Your task to perform on an android device: create a new album in the google photos Image 0: 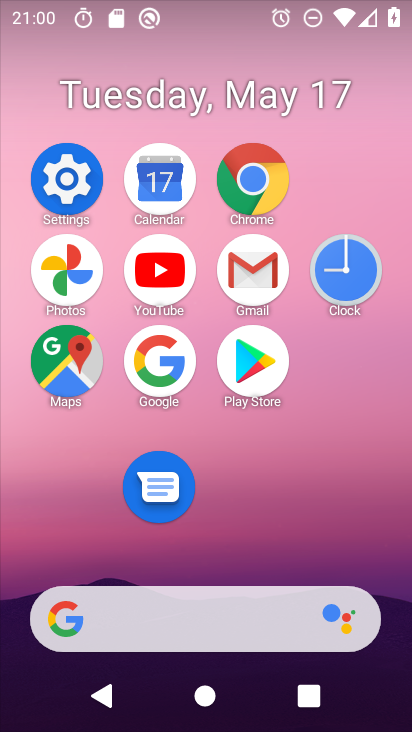
Step 0: click (62, 265)
Your task to perform on an android device: create a new album in the google photos Image 1: 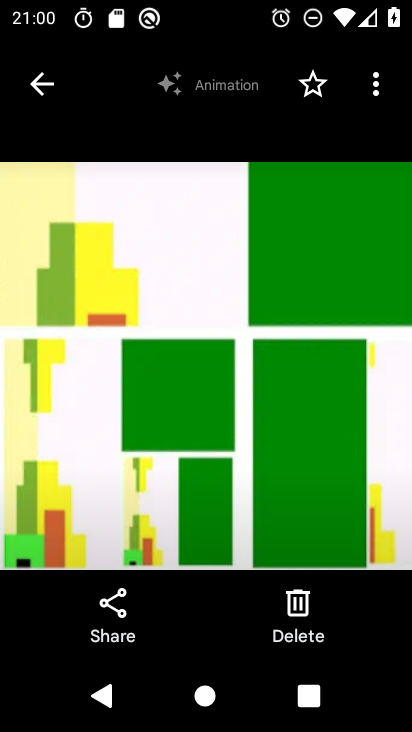
Step 1: click (33, 97)
Your task to perform on an android device: create a new album in the google photos Image 2: 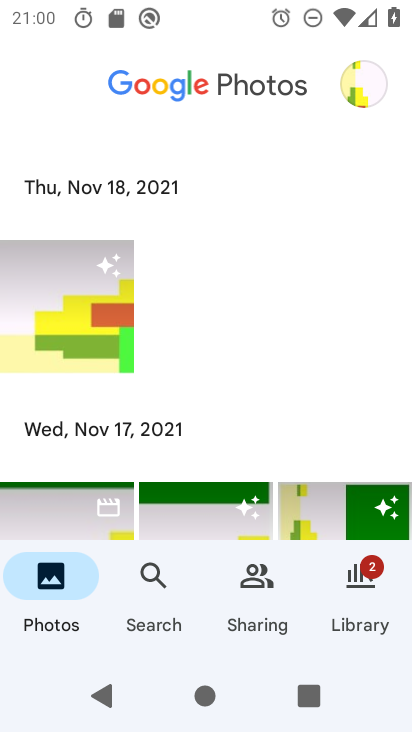
Step 2: click (360, 583)
Your task to perform on an android device: create a new album in the google photos Image 3: 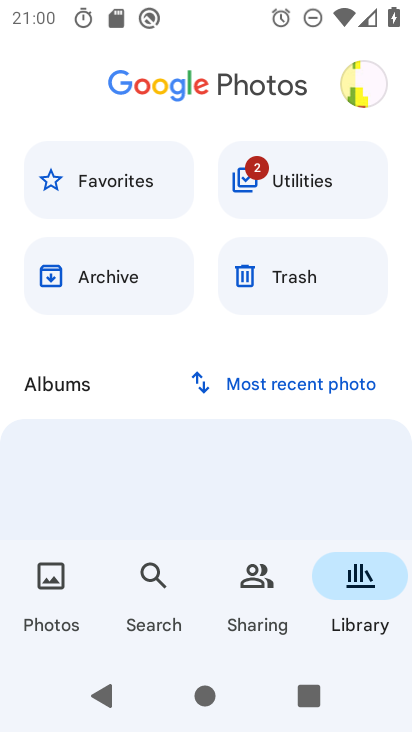
Step 3: drag from (249, 434) to (280, 117)
Your task to perform on an android device: create a new album in the google photos Image 4: 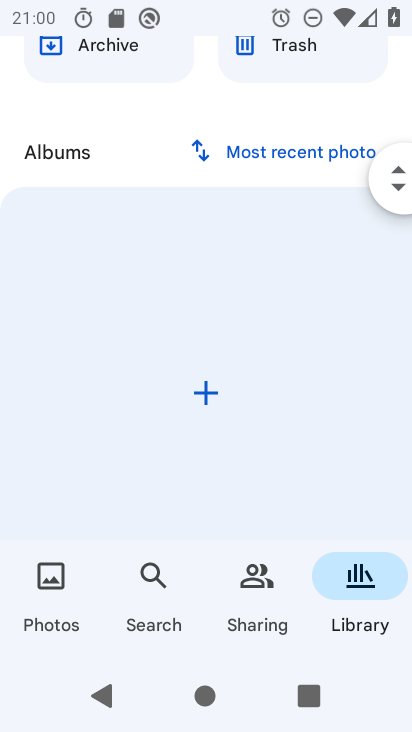
Step 4: click (226, 390)
Your task to perform on an android device: create a new album in the google photos Image 5: 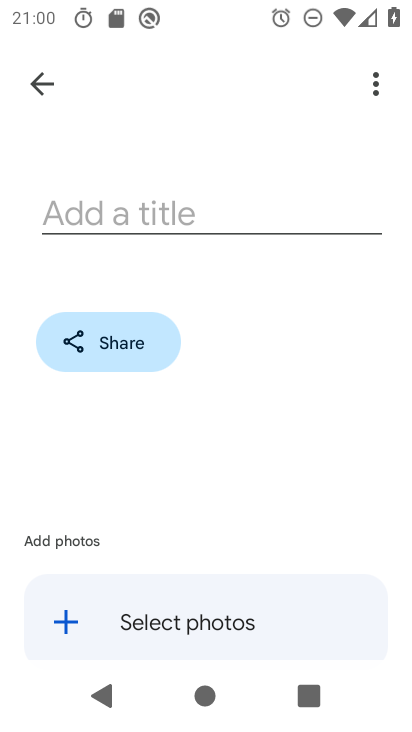
Step 5: click (237, 221)
Your task to perform on an android device: create a new album in the google photos Image 6: 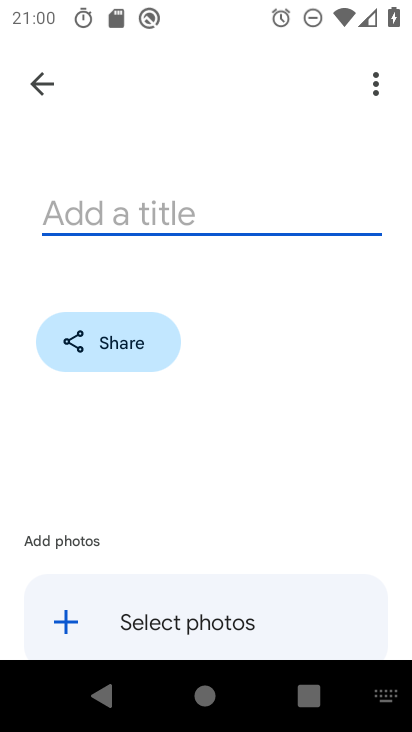
Step 6: type "bb"
Your task to perform on an android device: create a new album in the google photos Image 7: 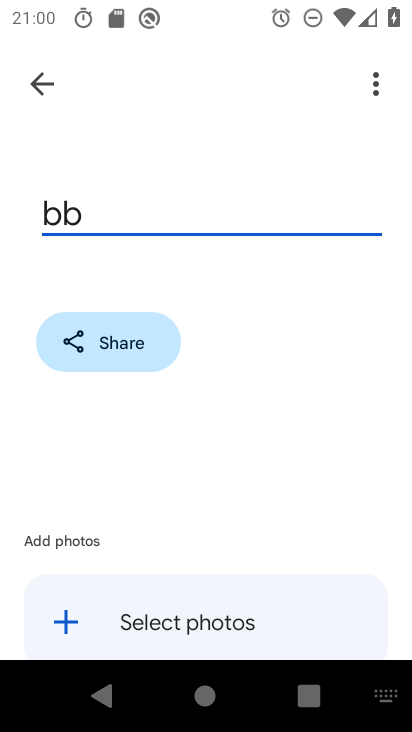
Step 7: click (127, 600)
Your task to perform on an android device: create a new album in the google photos Image 8: 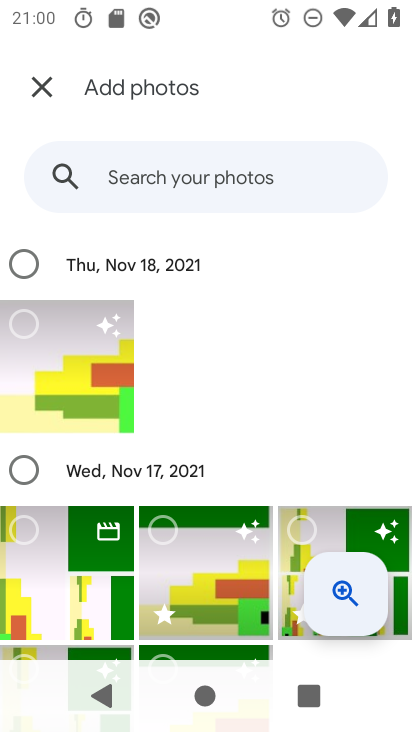
Step 8: click (73, 517)
Your task to perform on an android device: create a new album in the google photos Image 9: 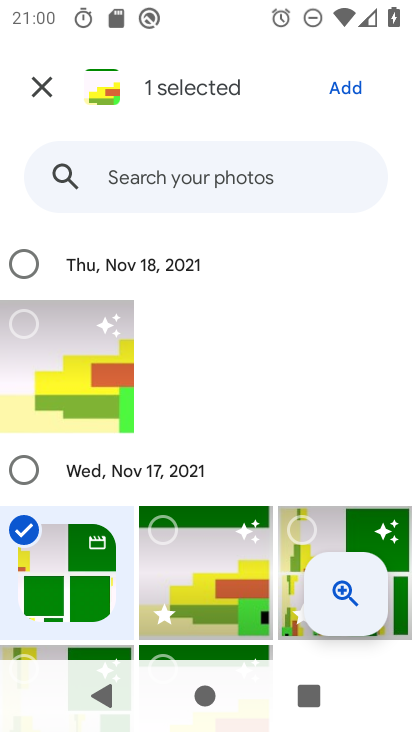
Step 9: click (164, 531)
Your task to perform on an android device: create a new album in the google photos Image 10: 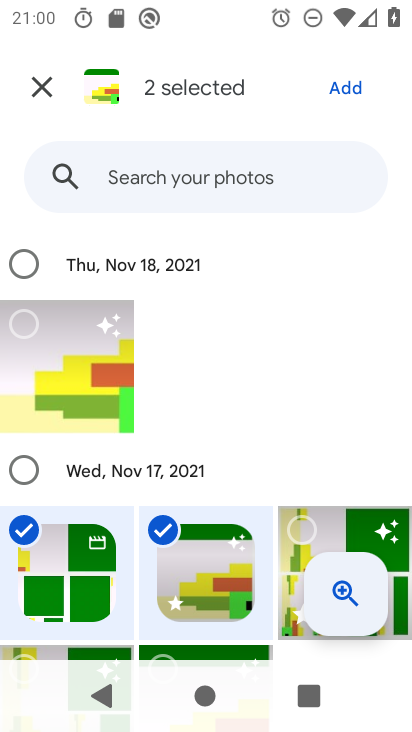
Step 10: click (363, 92)
Your task to perform on an android device: create a new album in the google photos Image 11: 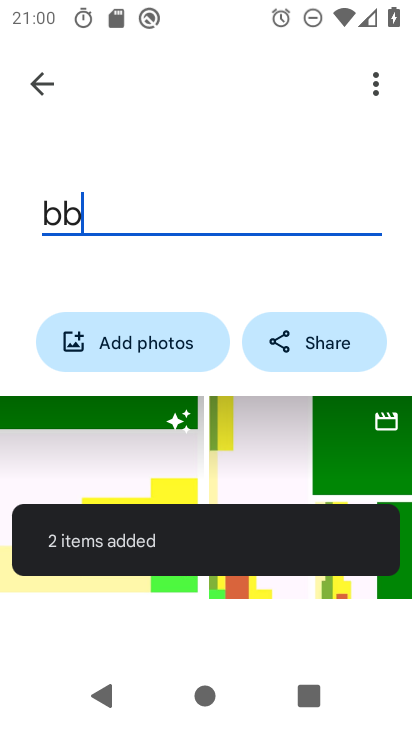
Step 11: task complete